Your task to perform on an android device: allow notifications from all sites in the chrome app Image 0: 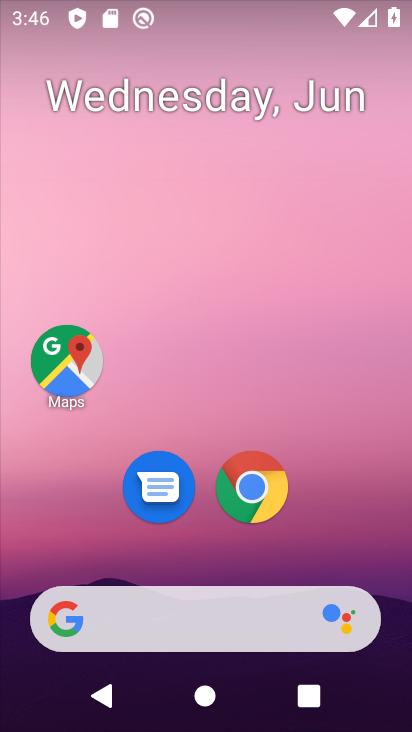
Step 0: click (257, 491)
Your task to perform on an android device: allow notifications from all sites in the chrome app Image 1: 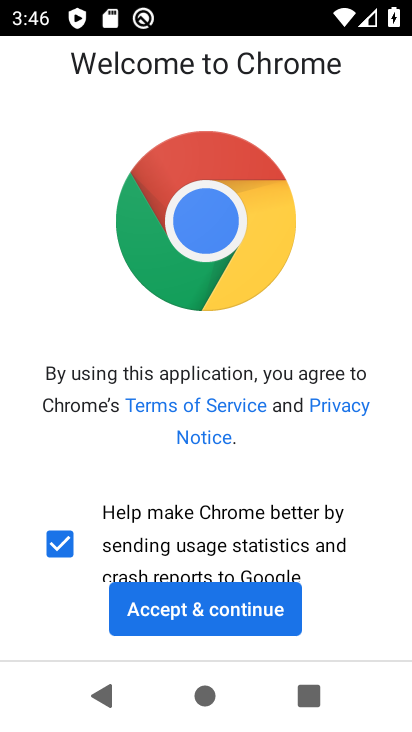
Step 1: click (251, 615)
Your task to perform on an android device: allow notifications from all sites in the chrome app Image 2: 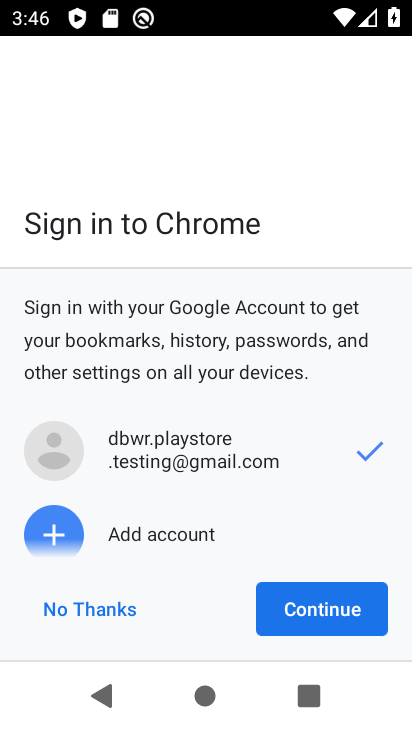
Step 2: click (367, 611)
Your task to perform on an android device: allow notifications from all sites in the chrome app Image 3: 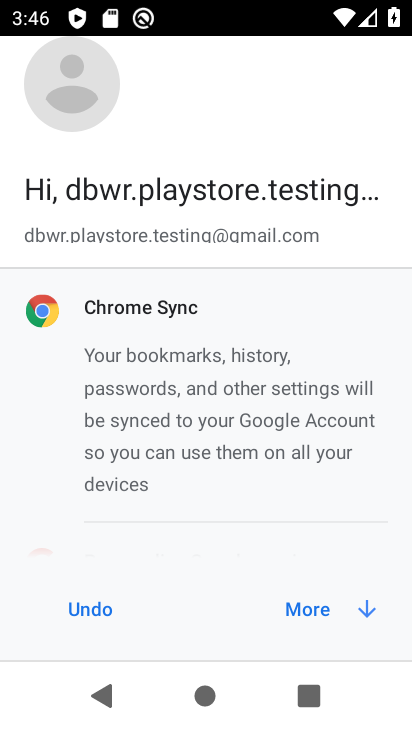
Step 3: click (316, 605)
Your task to perform on an android device: allow notifications from all sites in the chrome app Image 4: 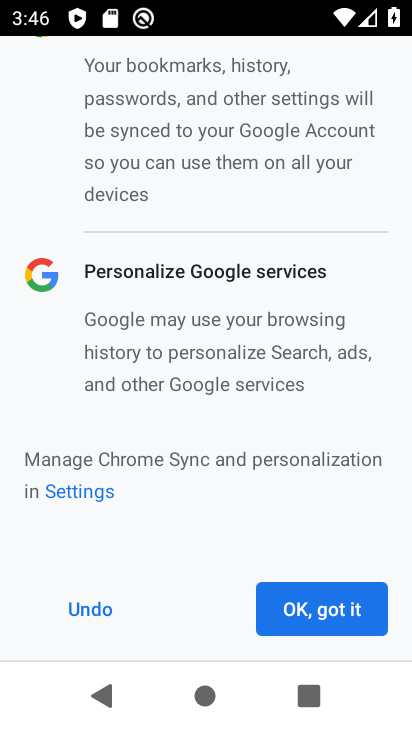
Step 4: click (316, 605)
Your task to perform on an android device: allow notifications from all sites in the chrome app Image 5: 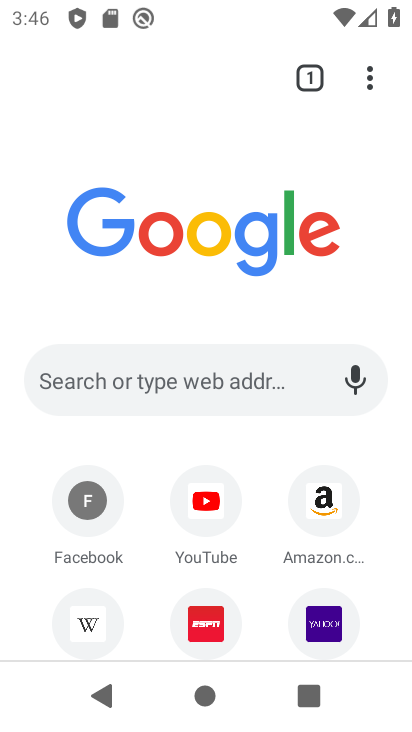
Step 5: click (370, 73)
Your task to perform on an android device: allow notifications from all sites in the chrome app Image 6: 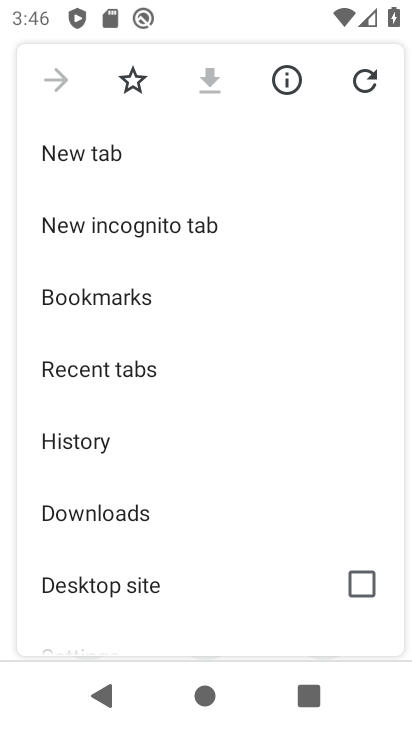
Step 6: drag from (95, 459) to (287, 15)
Your task to perform on an android device: allow notifications from all sites in the chrome app Image 7: 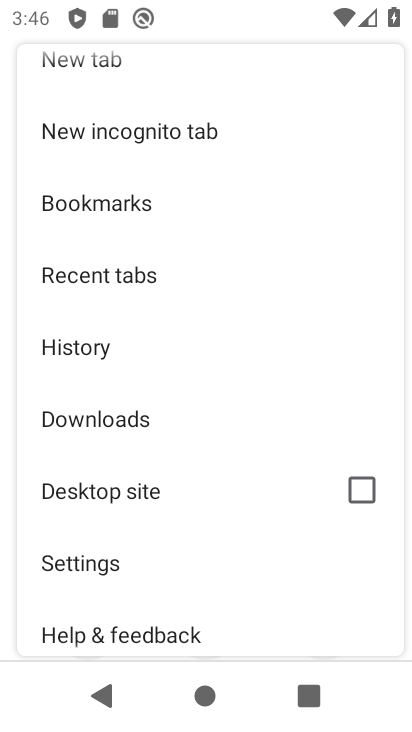
Step 7: click (91, 567)
Your task to perform on an android device: allow notifications from all sites in the chrome app Image 8: 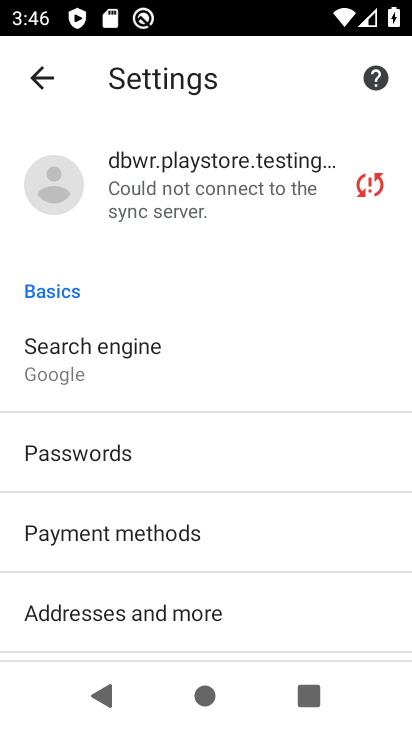
Step 8: drag from (136, 573) to (140, 46)
Your task to perform on an android device: allow notifications from all sites in the chrome app Image 9: 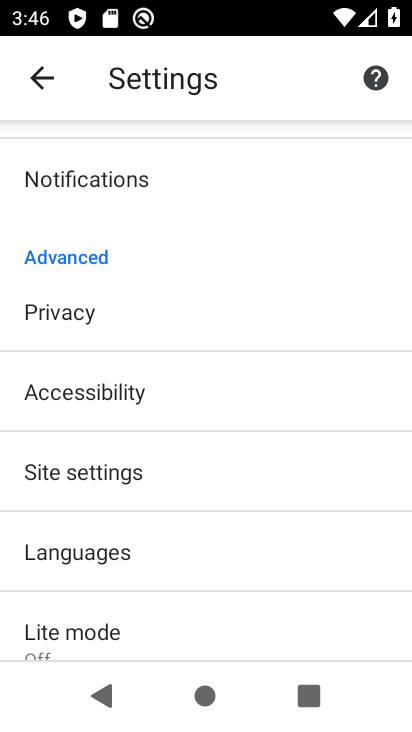
Step 9: click (91, 485)
Your task to perform on an android device: allow notifications from all sites in the chrome app Image 10: 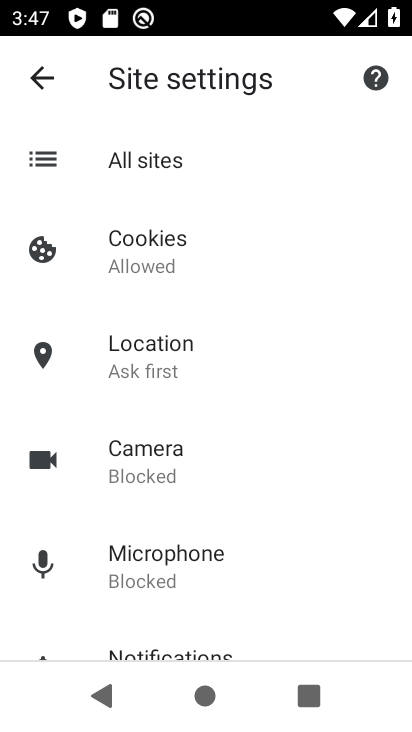
Step 10: drag from (203, 560) to (221, 165)
Your task to perform on an android device: allow notifications from all sites in the chrome app Image 11: 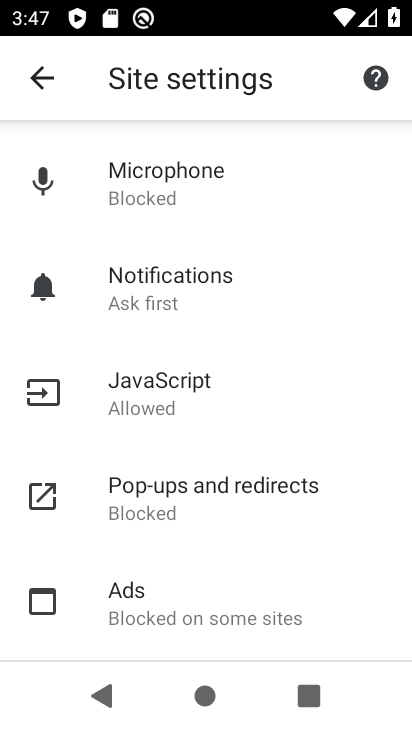
Step 11: click (163, 300)
Your task to perform on an android device: allow notifications from all sites in the chrome app Image 12: 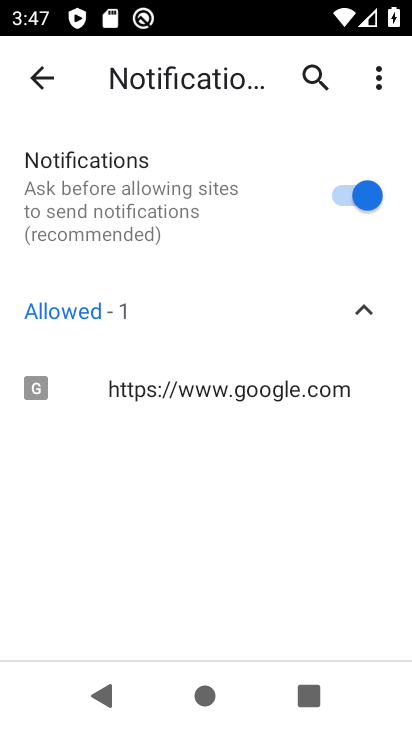
Step 12: task complete